Your task to perform on an android device: check battery use Image 0: 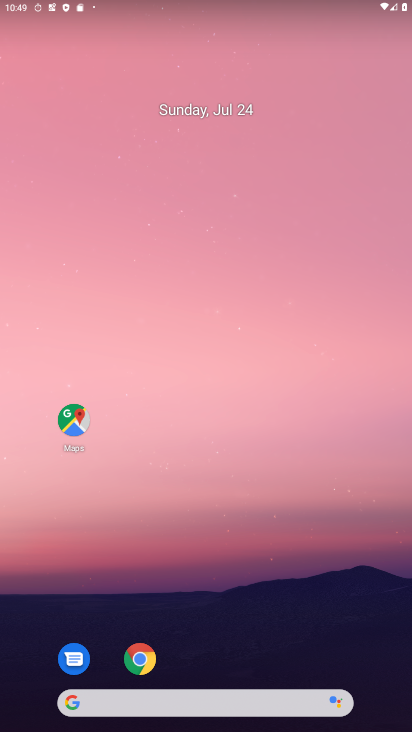
Step 0: drag from (189, 695) to (179, 165)
Your task to perform on an android device: check battery use Image 1: 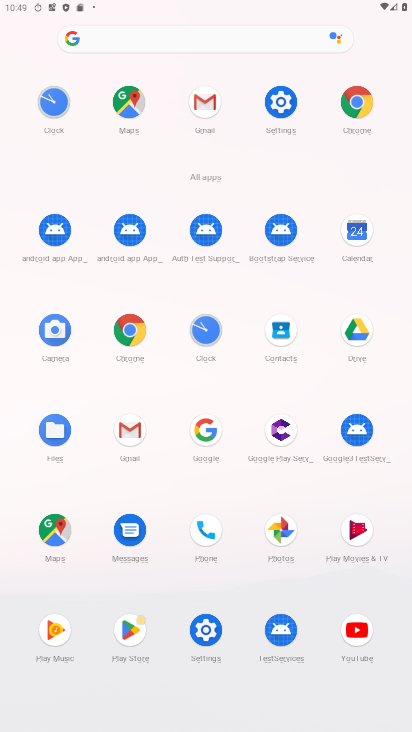
Step 1: click (278, 102)
Your task to perform on an android device: check battery use Image 2: 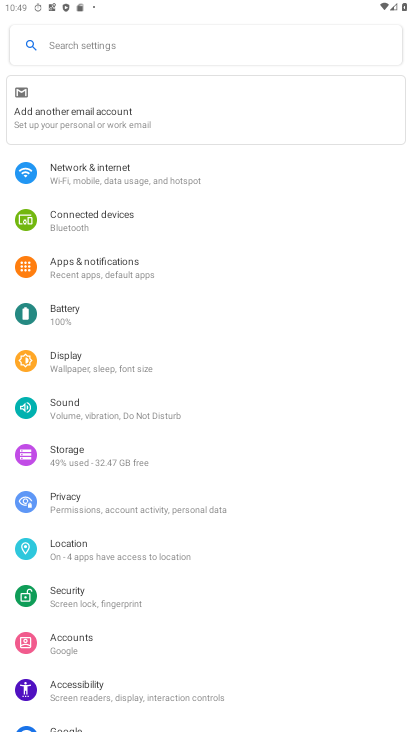
Step 2: click (75, 314)
Your task to perform on an android device: check battery use Image 3: 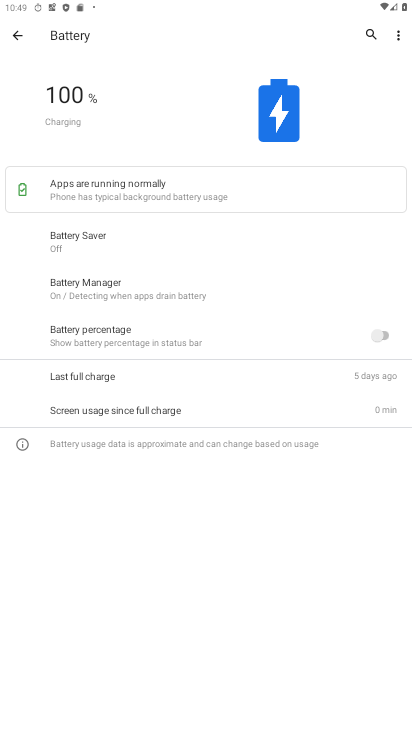
Step 3: click (397, 32)
Your task to perform on an android device: check battery use Image 4: 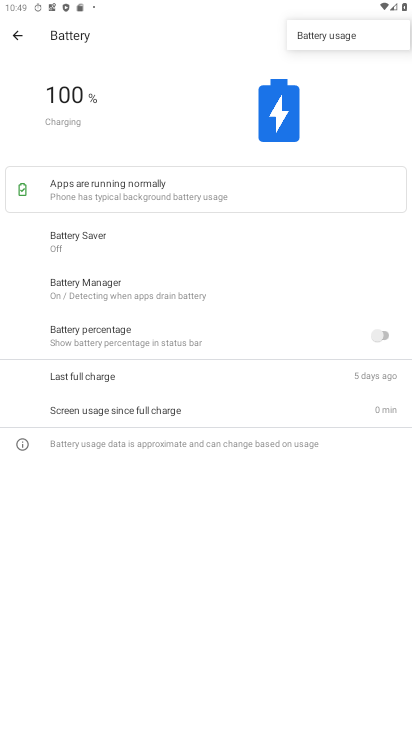
Step 4: click (339, 33)
Your task to perform on an android device: check battery use Image 5: 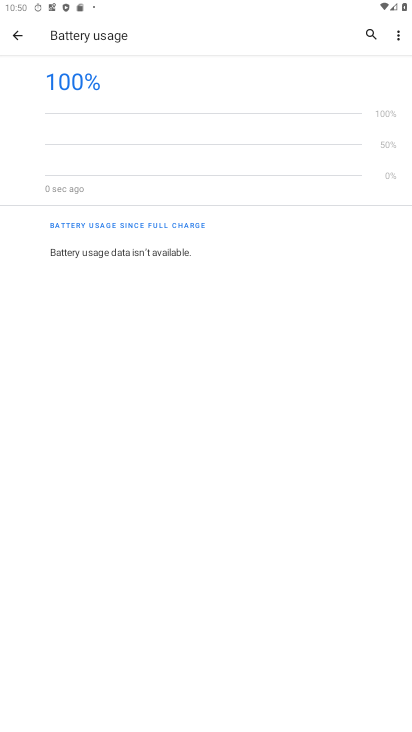
Step 5: task complete